Your task to perform on an android device: Open Chrome and go to settings Image 0: 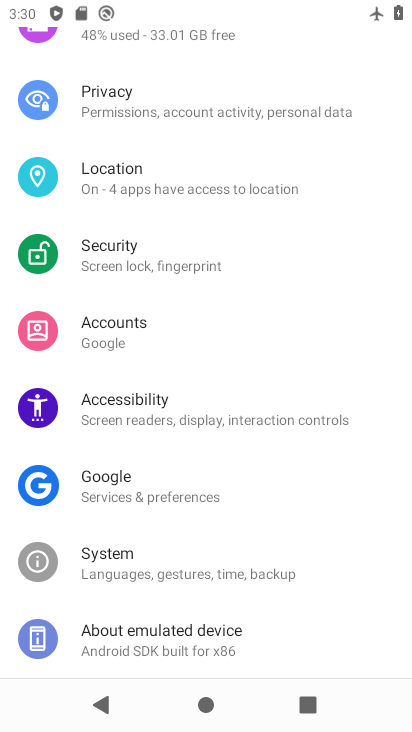
Step 0: press home button
Your task to perform on an android device: Open Chrome and go to settings Image 1: 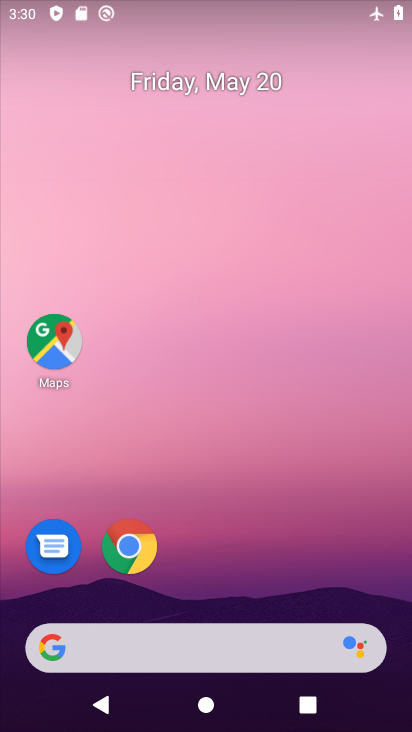
Step 1: click (131, 549)
Your task to perform on an android device: Open Chrome and go to settings Image 2: 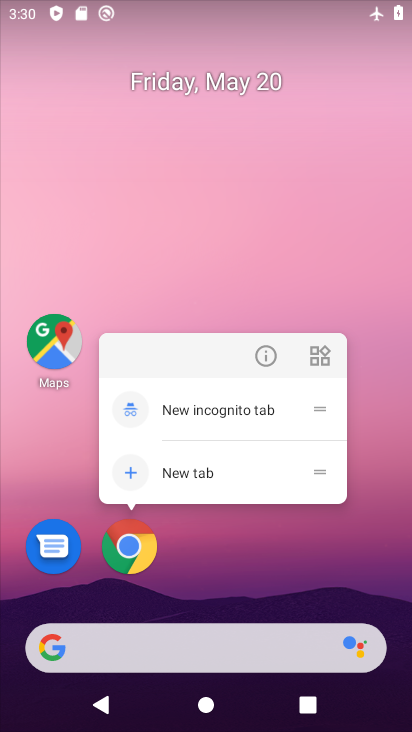
Step 2: click (132, 550)
Your task to perform on an android device: Open Chrome and go to settings Image 3: 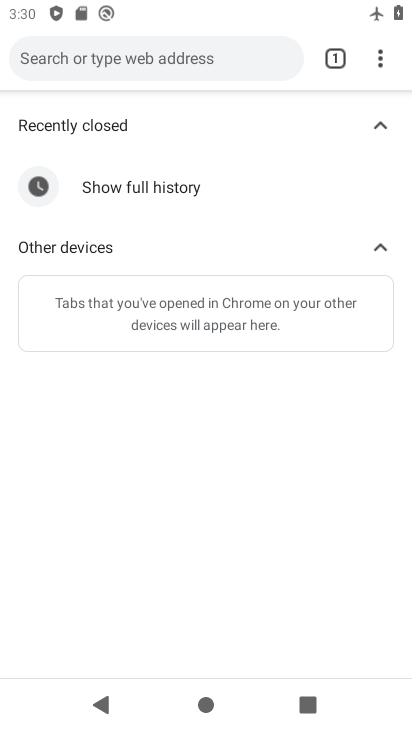
Step 3: click (385, 53)
Your task to perform on an android device: Open Chrome and go to settings Image 4: 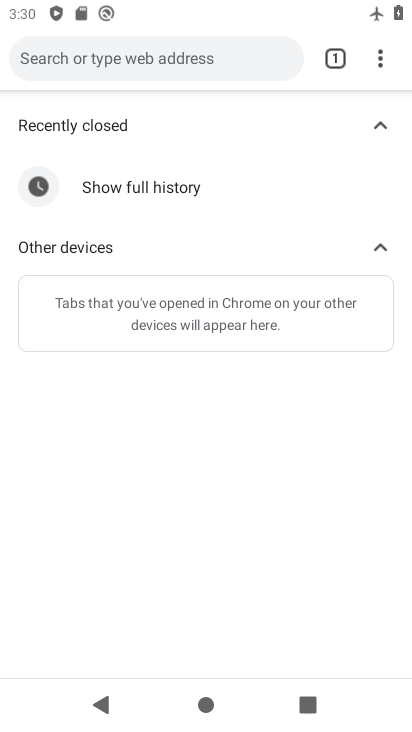
Step 4: task complete